Your task to perform on an android device: toggle pop-ups in chrome Image 0: 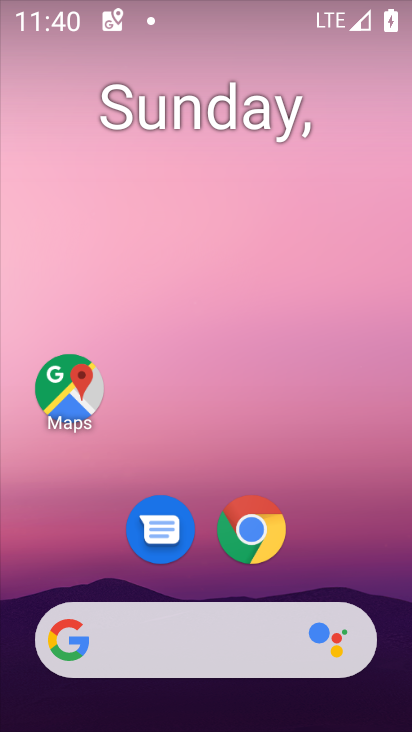
Step 0: click (251, 530)
Your task to perform on an android device: toggle pop-ups in chrome Image 1: 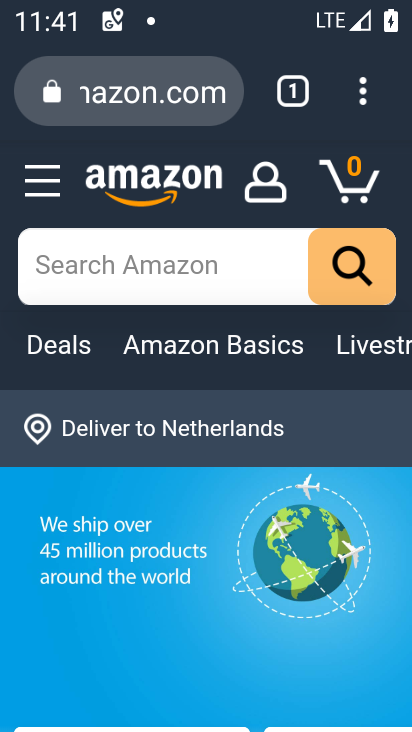
Step 1: click (371, 91)
Your task to perform on an android device: toggle pop-ups in chrome Image 2: 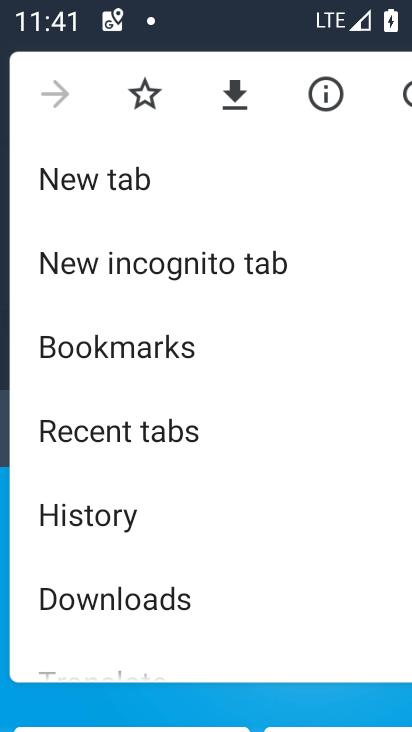
Step 2: drag from (177, 457) to (199, 331)
Your task to perform on an android device: toggle pop-ups in chrome Image 3: 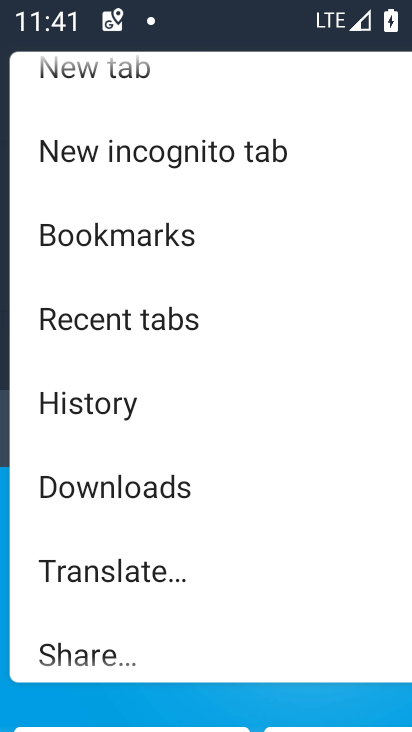
Step 3: drag from (137, 540) to (175, 449)
Your task to perform on an android device: toggle pop-ups in chrome Image 4: 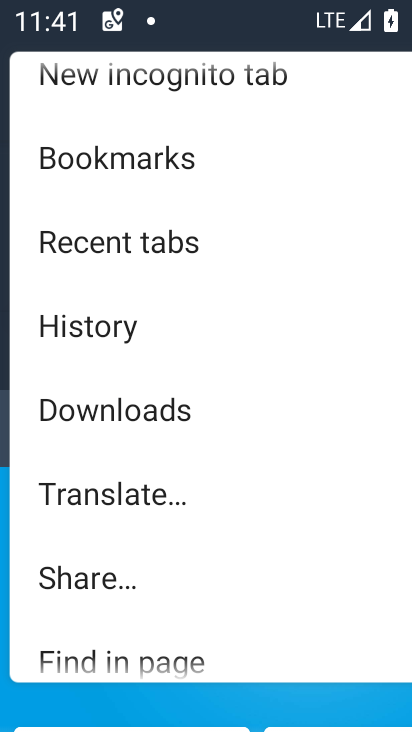
Step 4: drag from (161, 529) to (193, 425)
Your task to perform on an android device: toggle pop-ups in chrome Image 5: 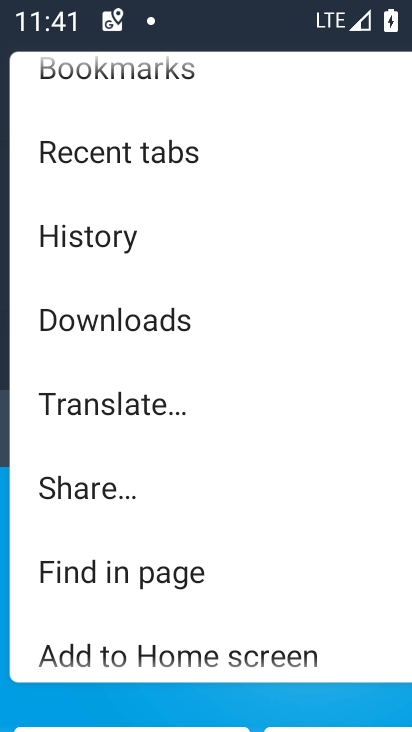
Step 5: drag from (175, 536) to (190, 457)
Your task to perform on an android device: toggle pop-ups in chrome Image 6: 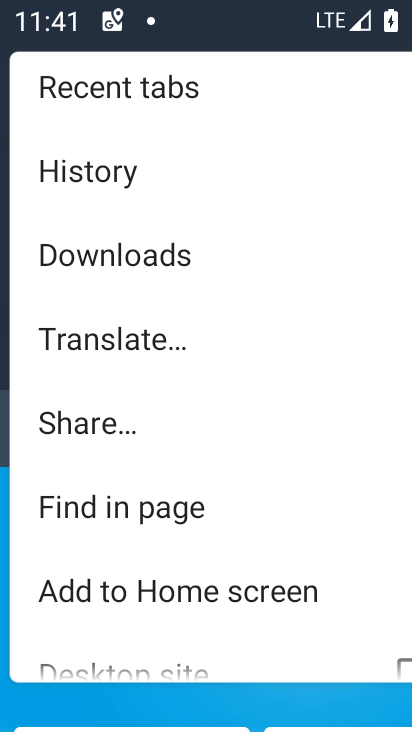
Step 6: drag from (155, 539) to (203, 429)
Your task to perform on an android device: toggle pop-ups in chrome Image 7: 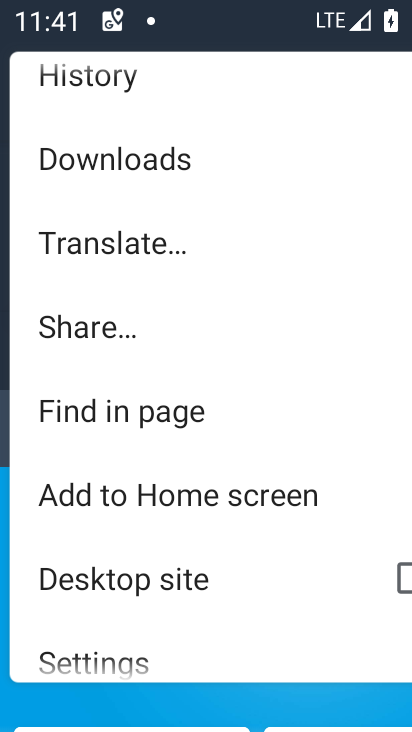
Step 7: drag from (164, 520) to (224, 404)
Your task to perform on an android device: toggle pop-ups in chrome Image 8: 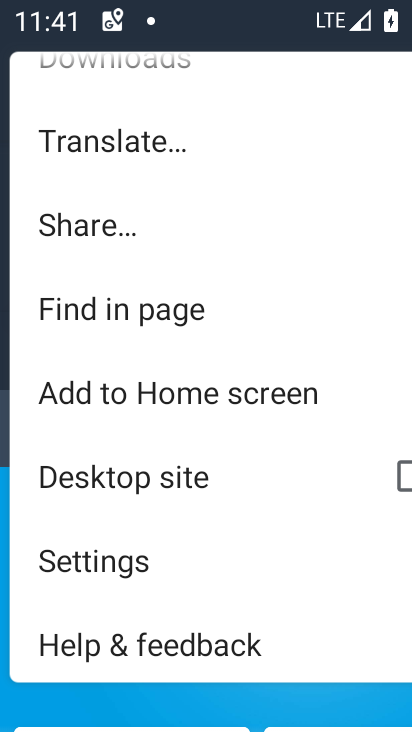
Step 8: click (114, 556)
Your task to perform on an android device: toggle pop-ups in chrome Image 9: 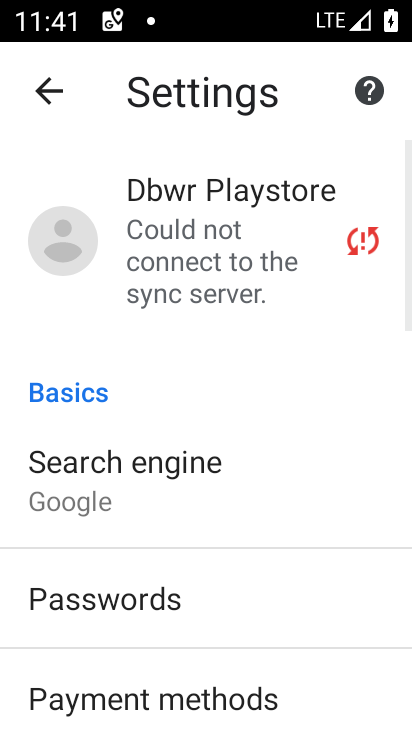
Step 9: drag from (160, 619) to (201, 481)
Your task to perform on an android device: toggle pop-ups in chrome Image 10: 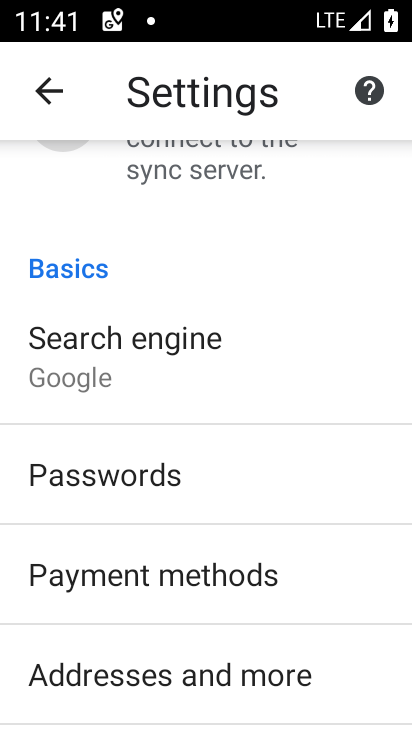
Step 10: drag from (147, 609) to (201, 478)
Your task to perform on an android device: toggle pop-ups in chrome Image 11: 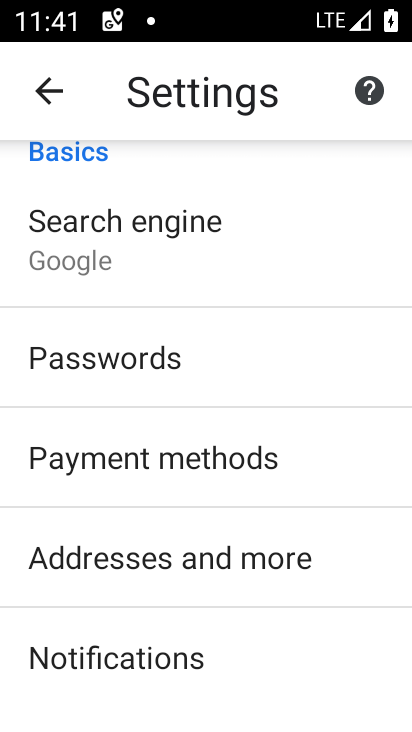
Step 11: drag from (155, 611) to (215, 456)
Your task to perform on an android device: toggle pop-ups in chrome Image 12: 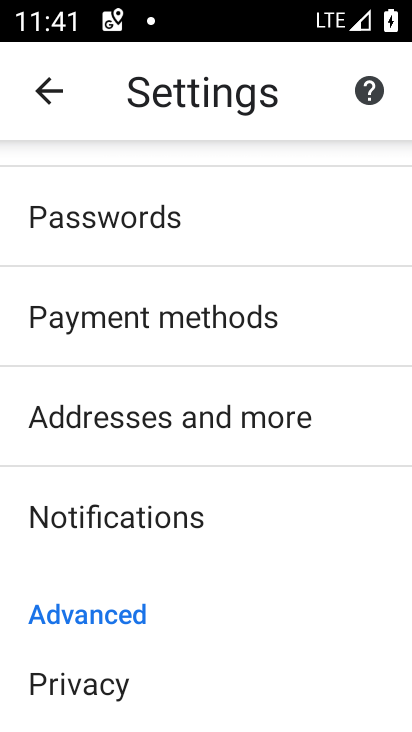
Step 12: drag from (156, 577) to (220, 474)
Your task to perform on an android device: toggle pop-ups in chrome Image 13: 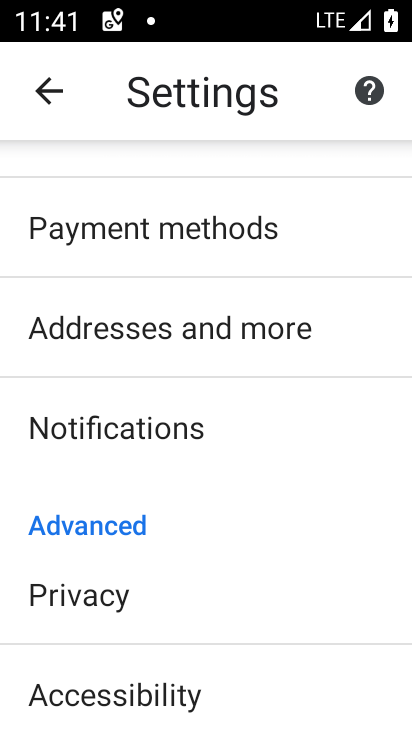
Step 13: drag from (166, 620) to (242, 496)
Your task to perform on an android device: toggle pop-ups in chrome Image 14: 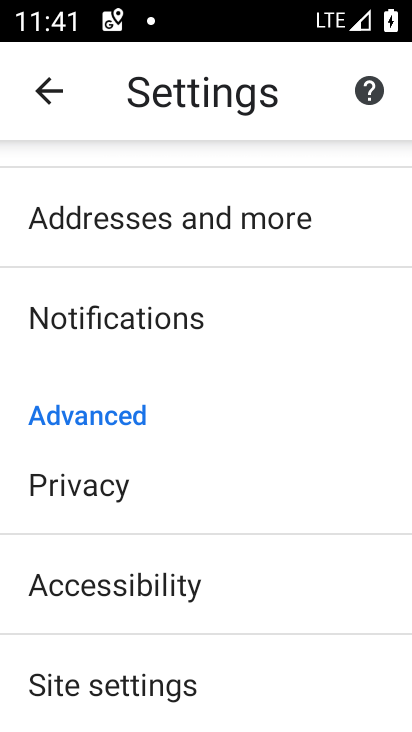
Step 14: drag from (206, 591) to (272, 443)
Your task to perform on an android device: toggle pop-ups in chrome Image 15: 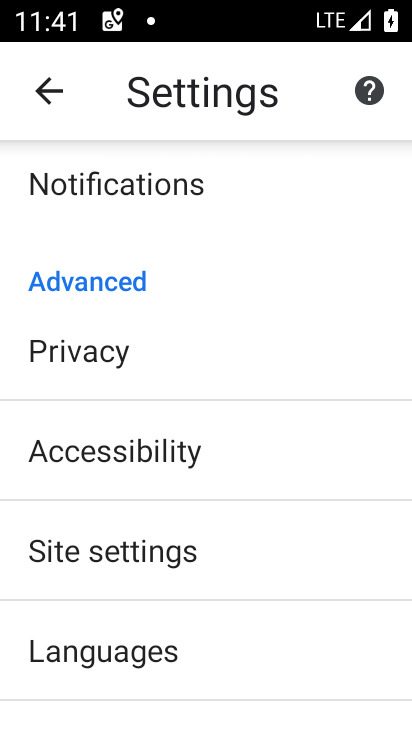
Step 15: click (149, 545)
Your task to perform on an android device: toggle pop-ups in chrome Image 16: 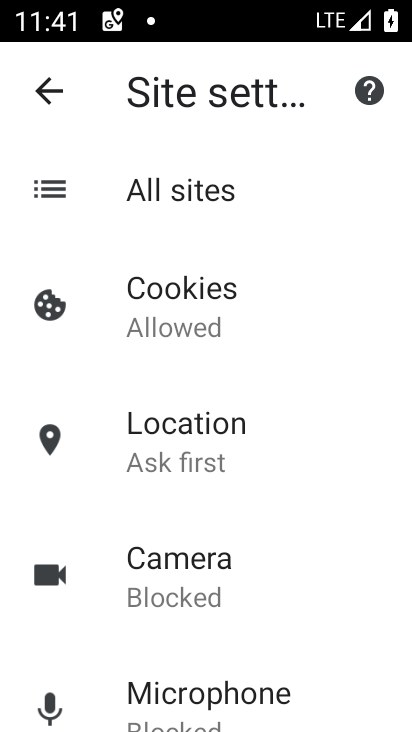
Step 16: drag from (257, 594) to (277, 435)
Your task to perform on an android device: toggle pop-ups in chrome Image 17: 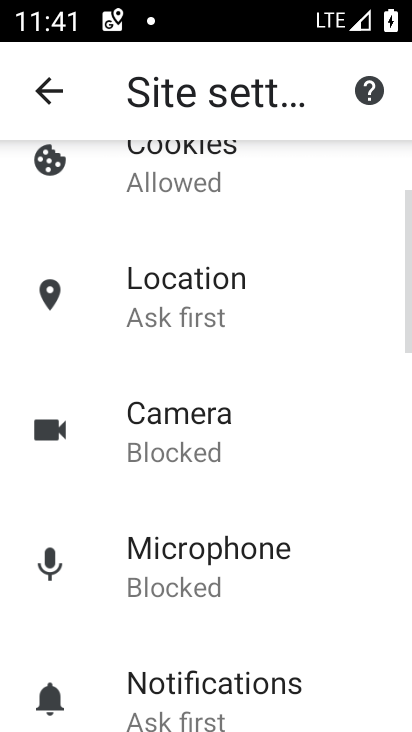
Step 17: drag from (215, 603) to (269, 481)
Your task to perform on an android device: toggle pop-ups in chrome Image 18: 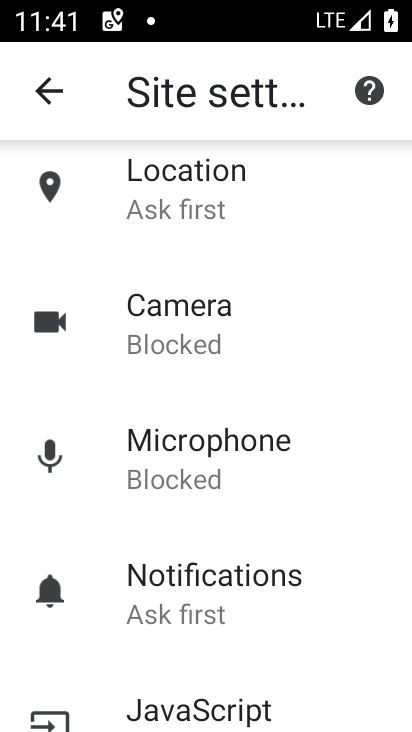
Step 18: drag from (214, 527) to (247, 438)
Your task to perform on an android device: toggle pop-ups in chrome Image 19: 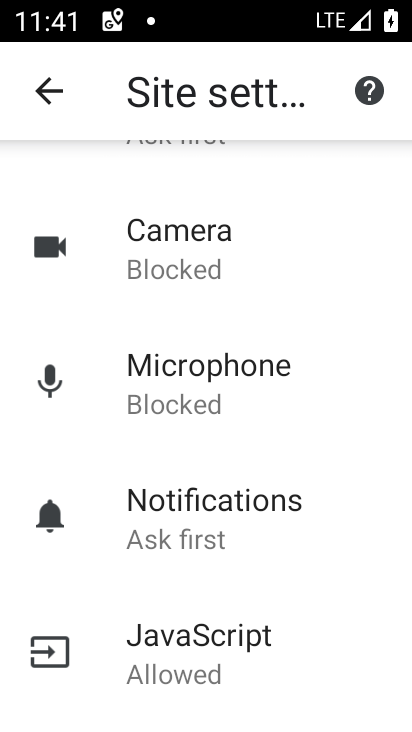
Step 19: drag from (171, 574) to (248, 434)
Your task to perform on an android device: toggle pop-ups in chrome Image 20: 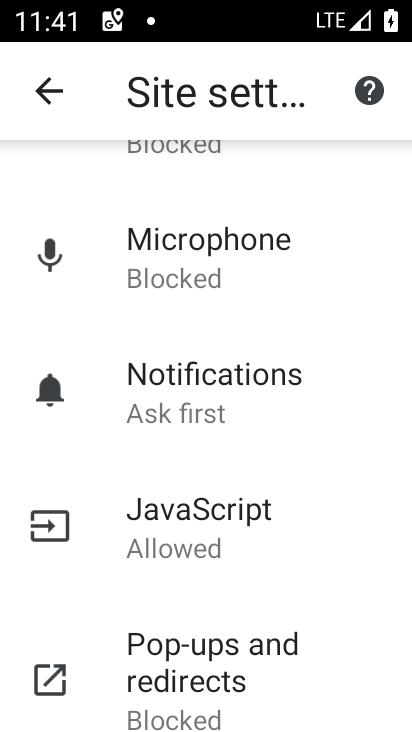
Step 20: drag from (180, 577) to (247, 479)
Your task to perform on an android device: toggle pop-ups in chrome Image 21: 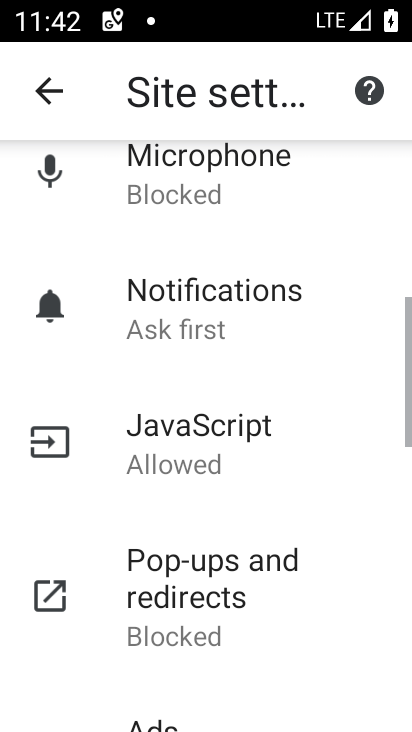
Step 21: click (193, 575)
Your task to perform on an android device: toggle pop-ups in chrome Image 22: 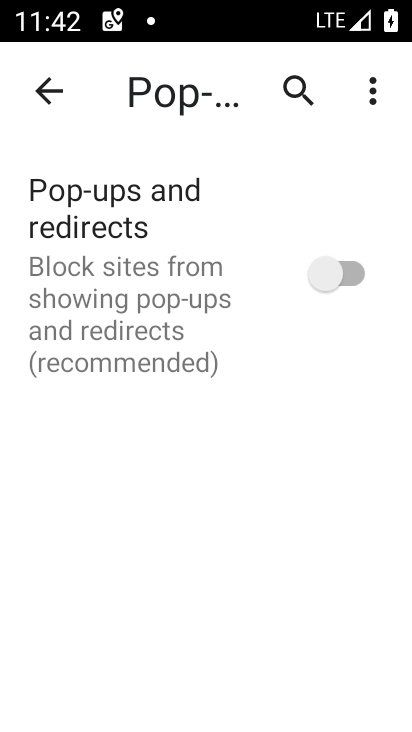
Step 22: click (336, 283)
Your task to perform on an android device: toggle pop-ups in chrome Image 23: 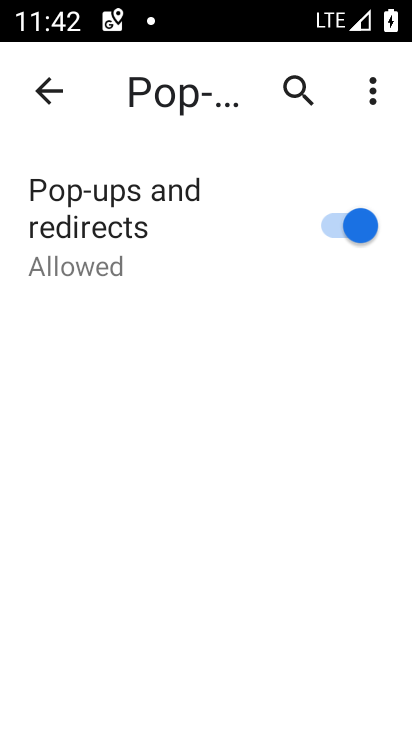
Step 23: task complete